Your task to perform on an android device: Is it going to rain tomorrow? Image 0: 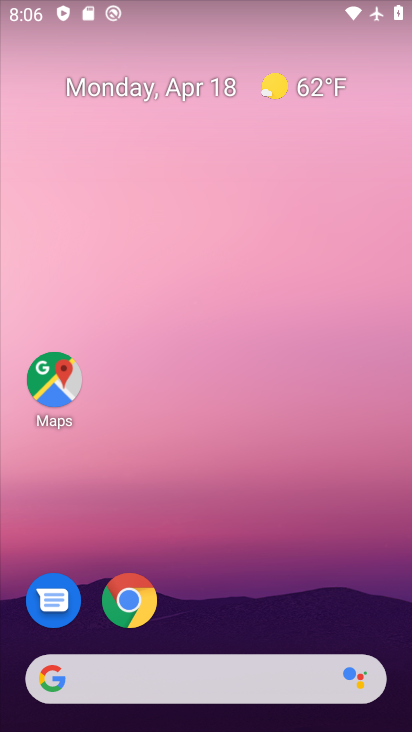
Step 0: click (196, 683)
Your task to perform on an android device: Is it going to rain tomorrow? Image 1: 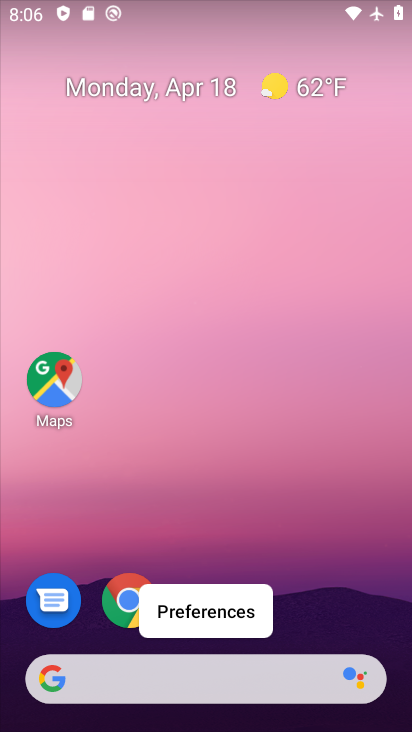
Step 1: click (200, 665)
Your task to perform on an android device: Is it going to rain tomorrow? Image 2: 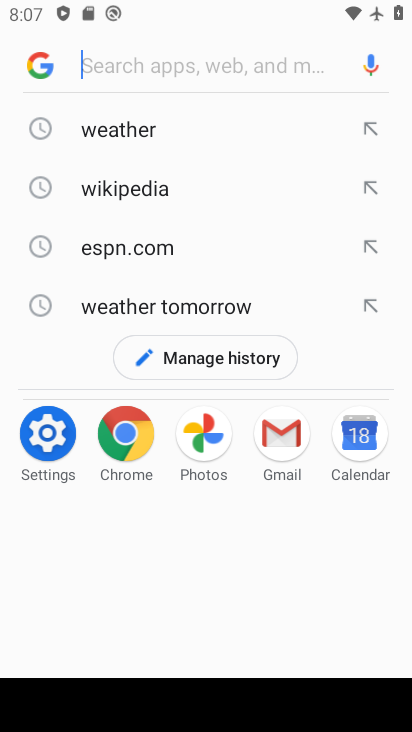
Step 2: click (121, 140)
Your task to perform on an android device: Is it going to rain tomorrow? Image 3: 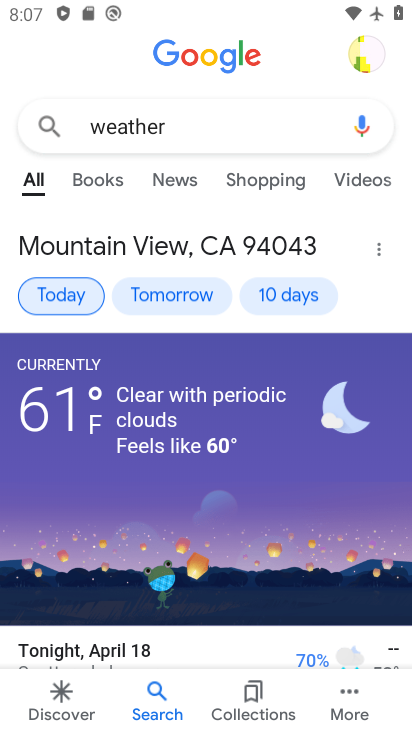
Step 3: task complete